Your task to perform on an android device: Open privacy settings Image 0: 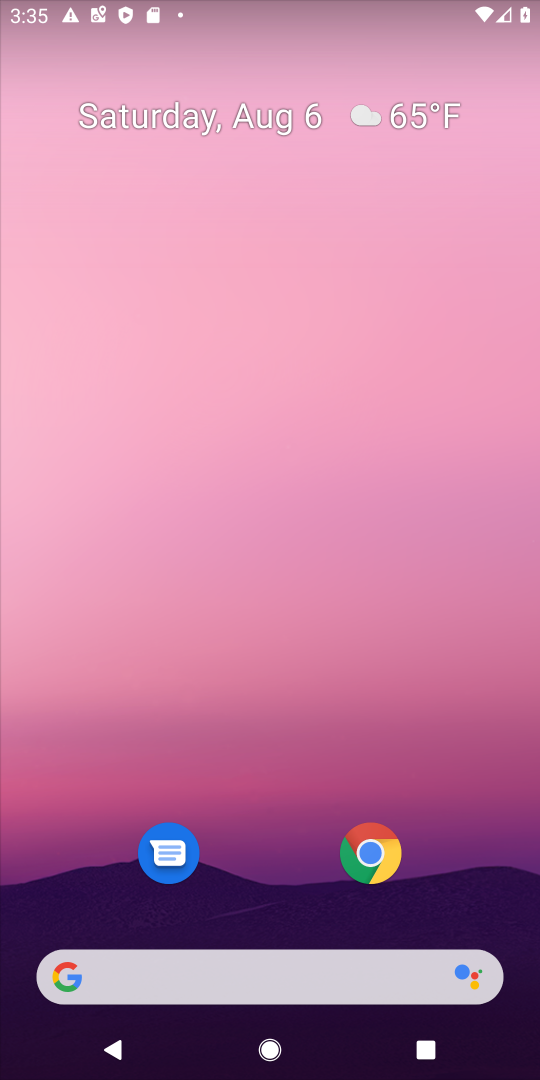
Step 0: drag from (271, 887) to (269, 110)
Your task to perform on an android device: Open privacy settings Image 1: 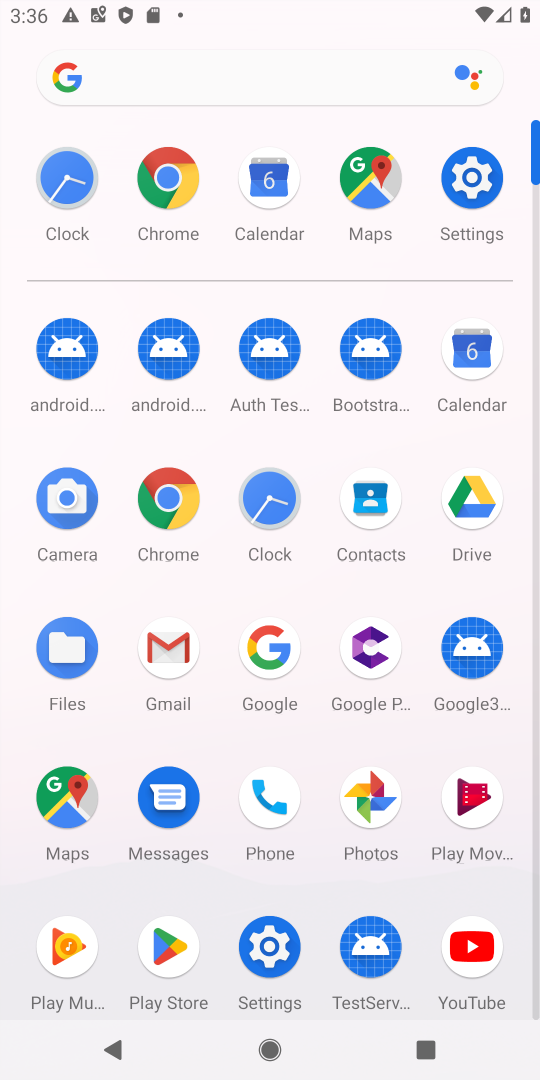
Step 1: click (486, 172)
Your task to perform on an android device: Open privacy settings Image 2: 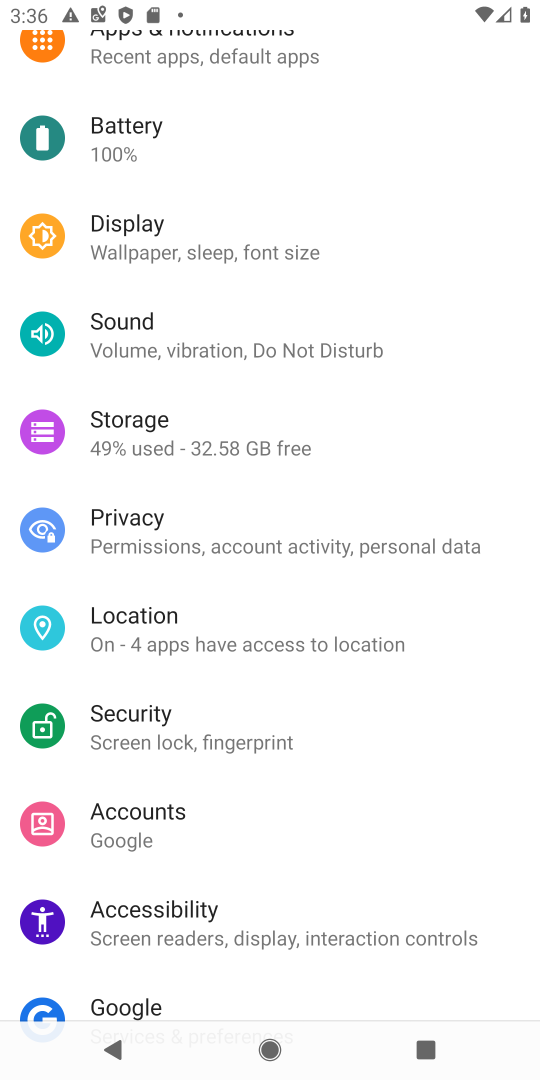
Step 2: click (168, 525)
Your task to perform on an android device: Open privacy settings Image 3: 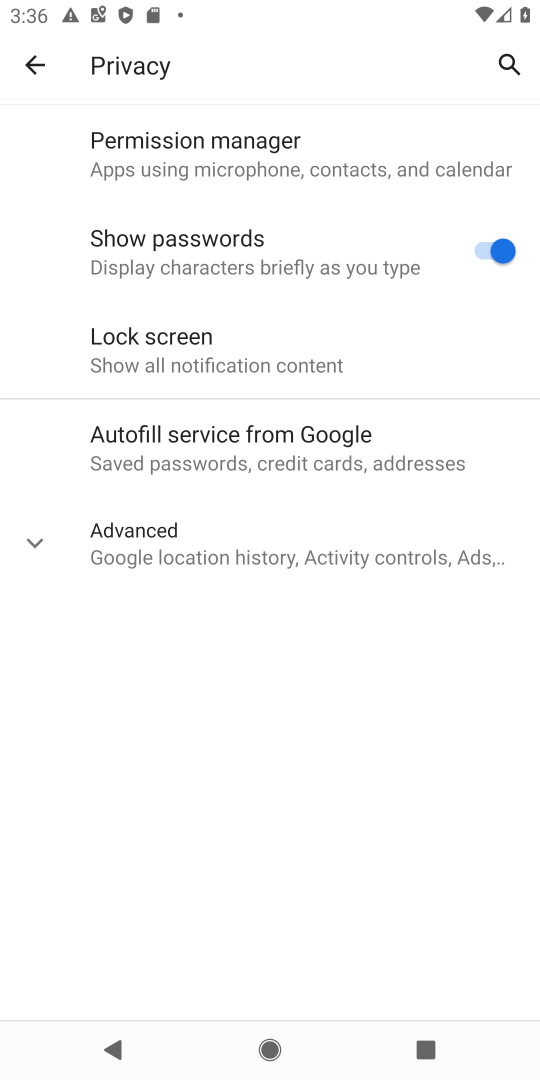
Step 3: task complete